Your task to perform on an android device: toggle notifications settings in the gmail app Image 0: 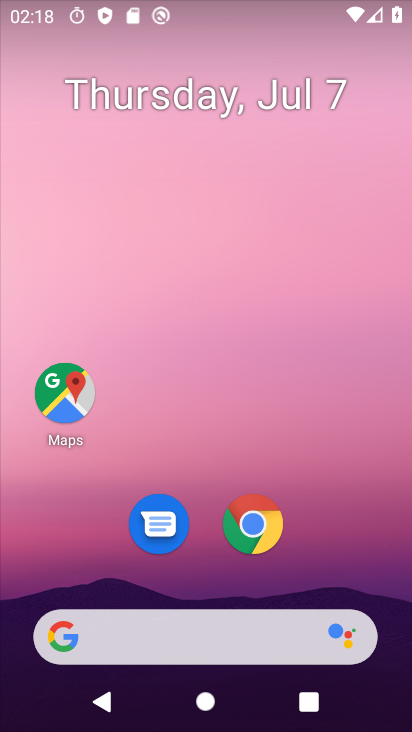
Step 0: drag from (220, 445) to (245, 4)
Your task to perform on an android device: toggle notifications settings in the gmail app Image 1: 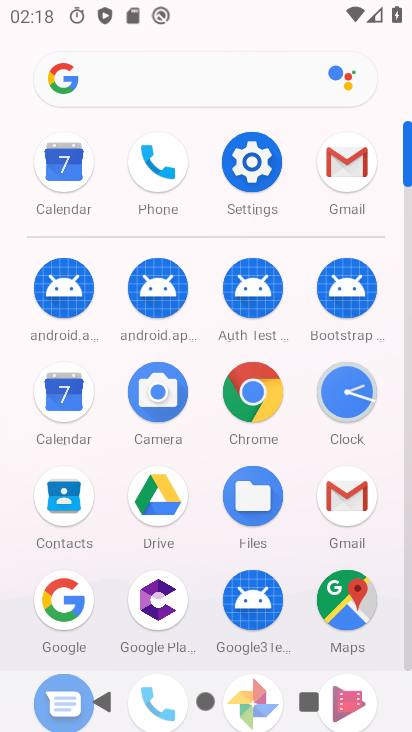
Step 1: click (245, 149)
Your task to perform on an android device: toggle notifications settings in the gmail app Image 2: 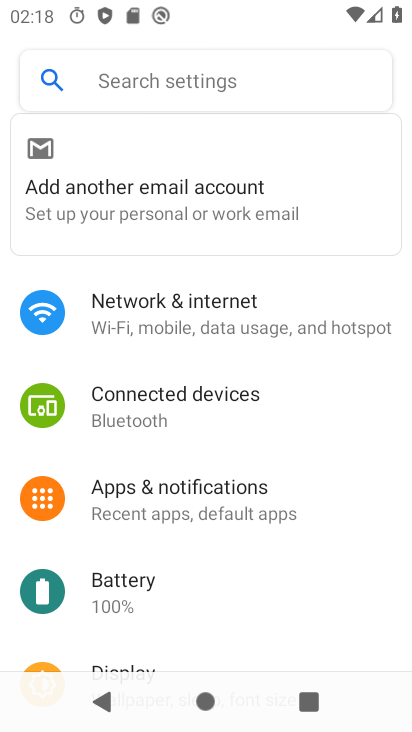
Step 2: click (207, 504)
Your task to perform on an android device: toggle notifications settings in the gmail app Image 3: 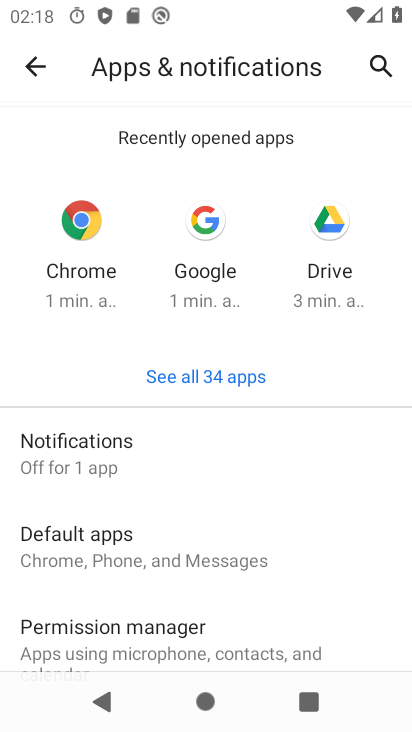
Step 3: click (211, 375)
Your task to perform on an android device: toggle notifications settings in the gmail app Image 4: 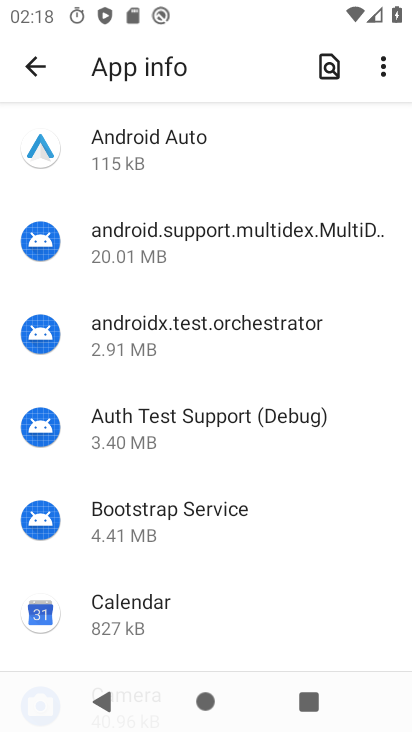
Step 4: drag from (241, 566) to (276, 34)
Your task to perform on an android device: toggle notifications settings in the gmail app Image 5: 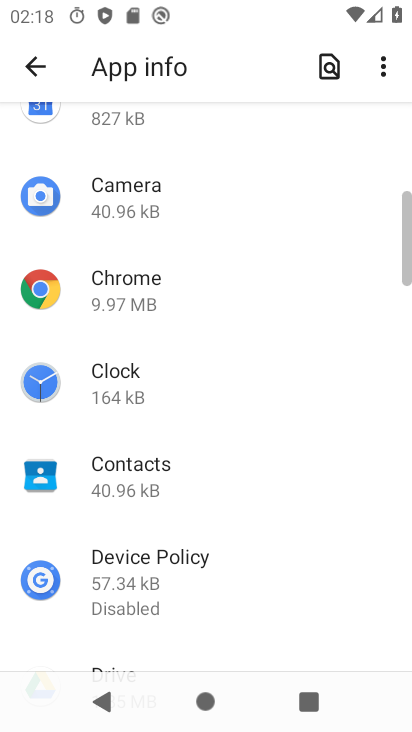
Step 5: drag from (245, 583) to (239, 70)
Your task to perform on an android device: toggle notifications settings in the gmail app Image 6: 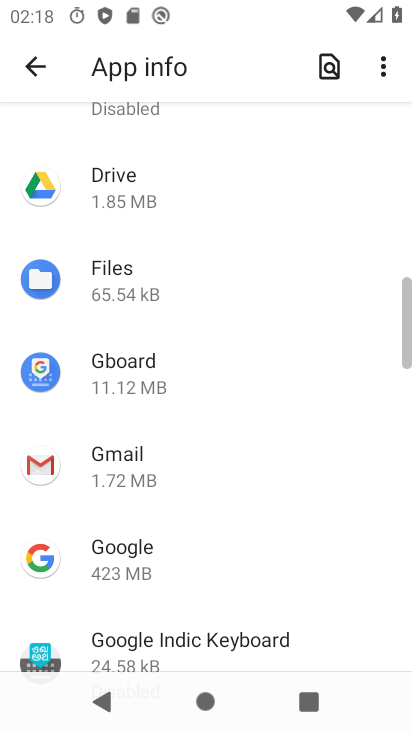
Step 6: click (105, 466)
Your task to perform on an android device: toggle notifications settings in the gmail app Image 7: 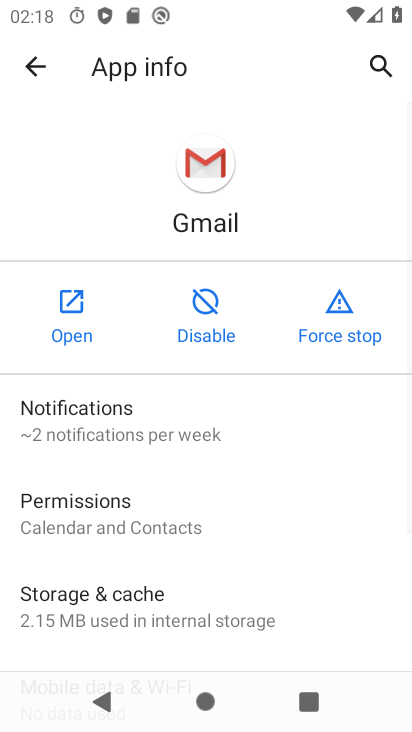
Step 7: click (124, 428)
Your task to perform on an android device: toggle notifications settings in the gmail app Image 8: 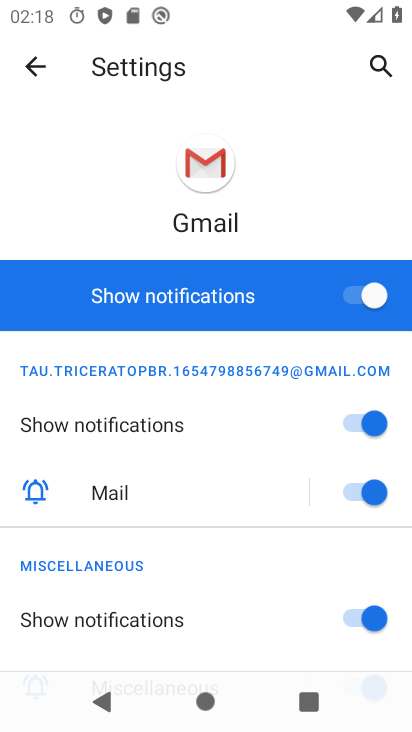
Step 8: click (351, 295)
Your task to perform on an android device: toggle notifications settings in the gmail app Image 9: 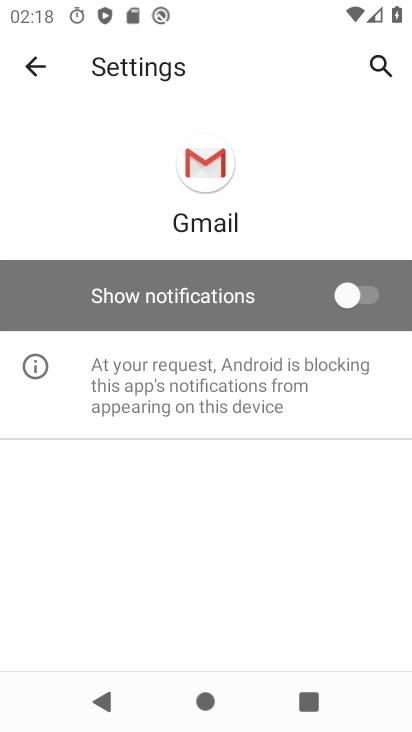
Step 9: task complete